Your task to perform on an android device: open wifi settings Image 0: 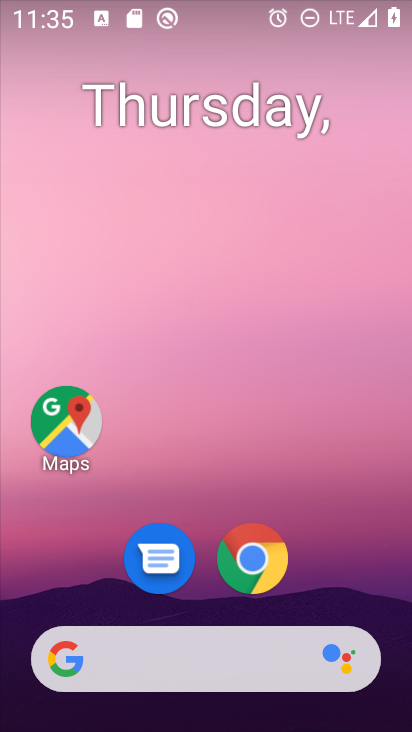
Step 0: drag from (391, 611) to (340, 133)
Your task to perform on an android device: open wifi settings Image 1: 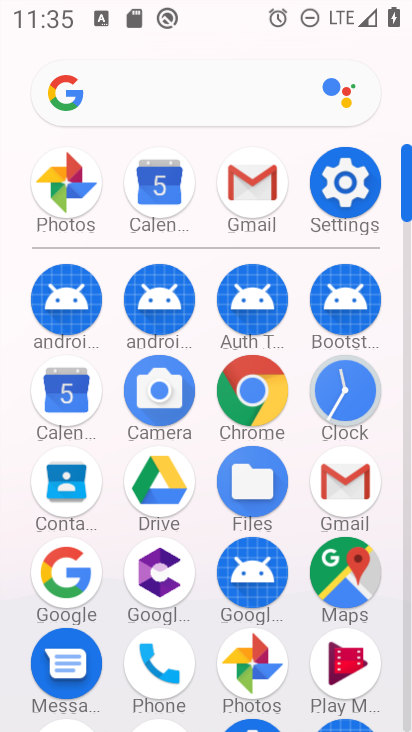
Step 1: click (409, 706)
Your task to perform on an android device: open wifi settings Image 2: 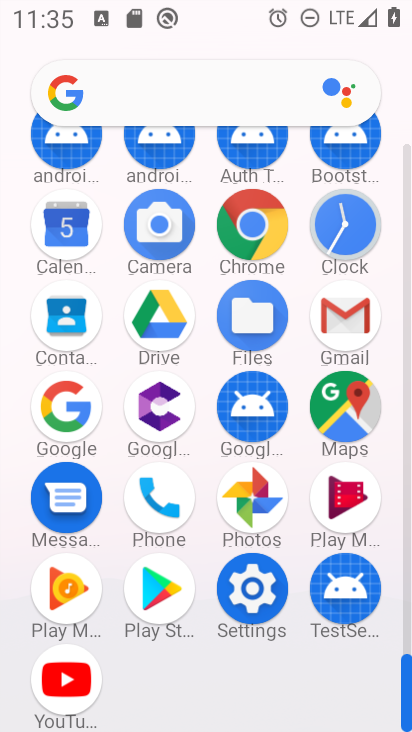
Step 2: click (253, 586)
Your task to perform on an android device: open wifi settings Image 3: 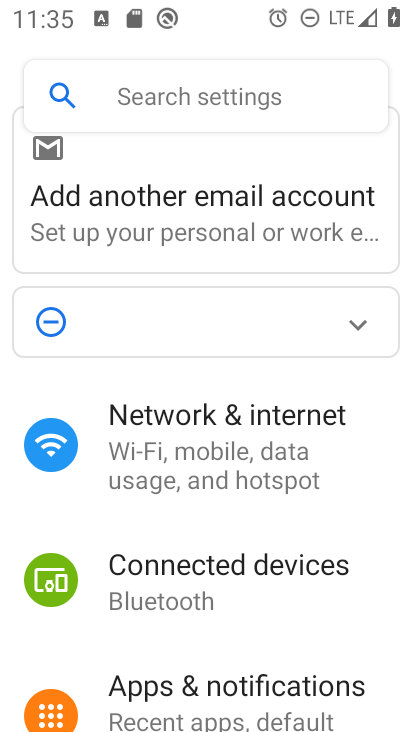
Step 3: click (172, 436)
Your task to perform on an android device: open wifi settings Image 4: 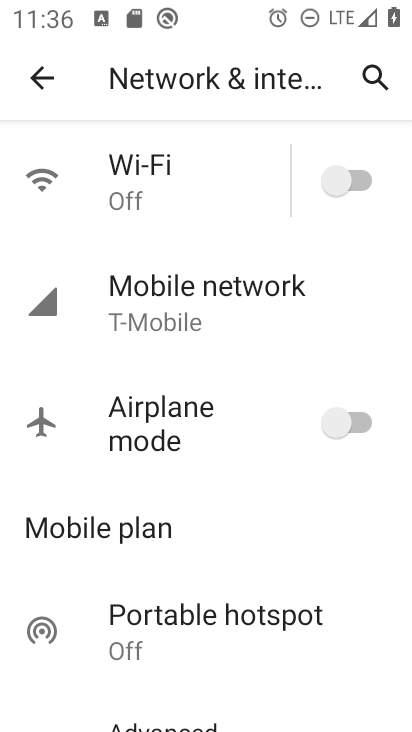
Step 4: click (137, 182)
Your task to perform on an android device: open wifi settings Image 5: 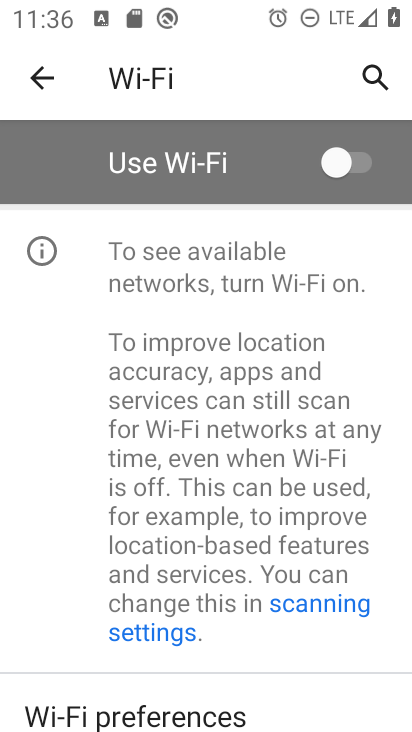
Step 5: drag from (234, 631) to (231, 324)
Your task to perform on an android device: open wifi settings Image 6: 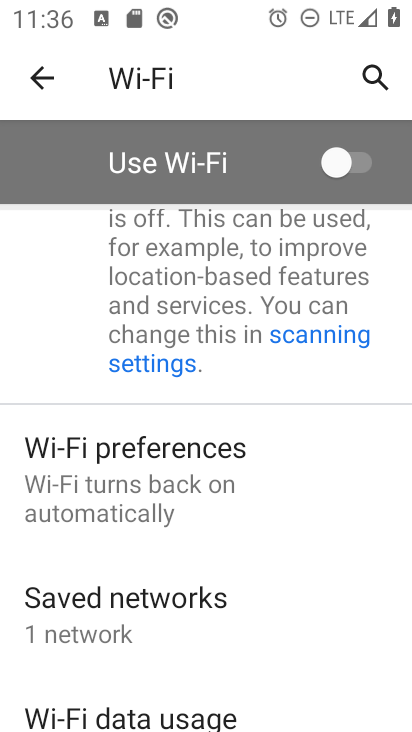
Step 6: drag from (236, 634) to (234, 295)
Your task to perform on an android device: open wifi settings Image 7: 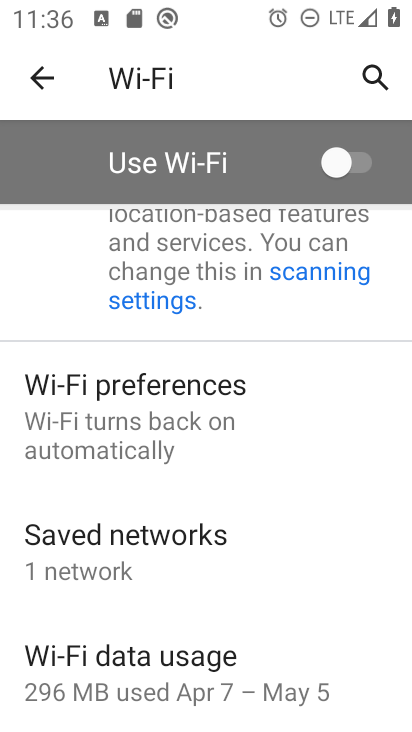
Step 7: click (353, 160)
Your task to perform on an android device: open wifi settings Image 8: 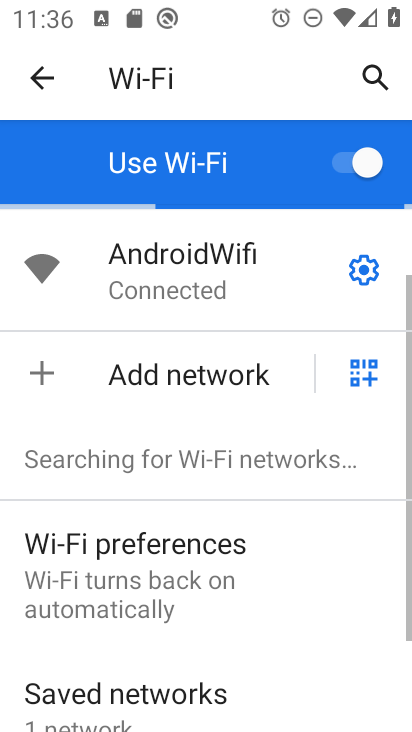
Step 8: click (359, 272)
Your task to perform on an android device: open wifi settings Image 9: 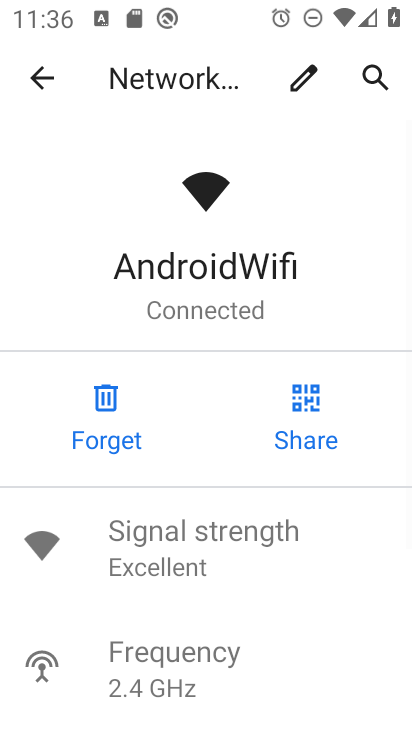
Step 9: drag from (212, 541) to (234, 219)
Your task to perform on an android device: open wifi settings Image 10: 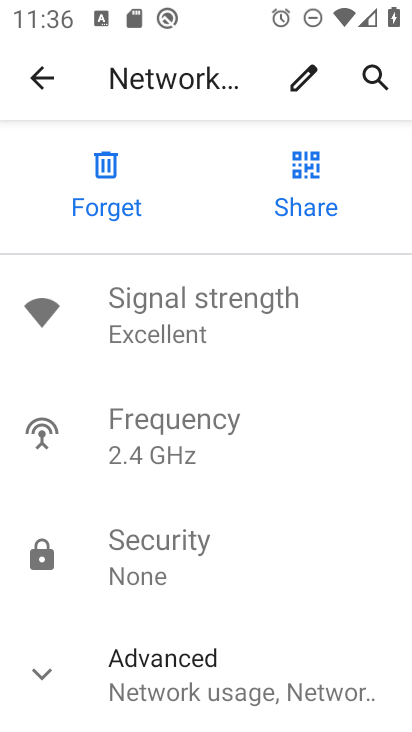
Step 10: click (43, 668)
Your task to perform on an android device: open wifi settings Image 11: 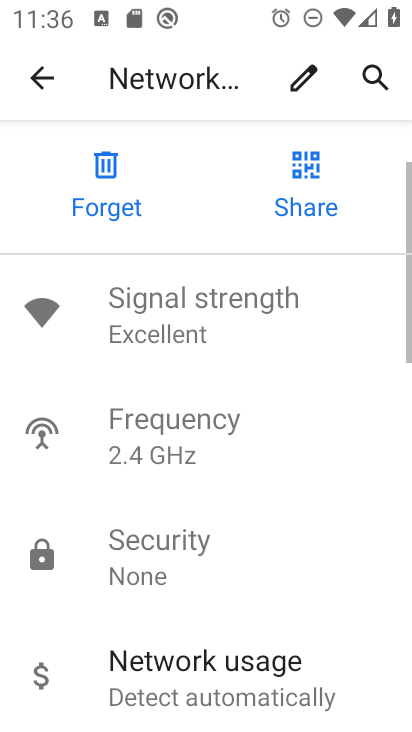
Step 11: task complete